Your task to perform on an android device: all mails in gmail Image 0: 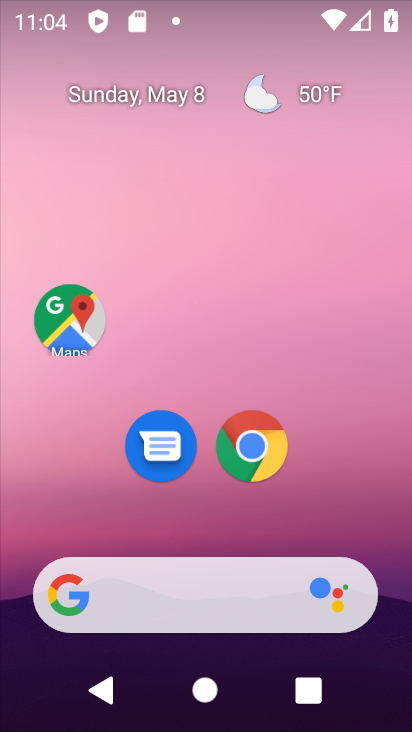
Step 0: drag from (317, 548) to (277, 164)
Your task to perform on an android device: all mails in gmail Image 1: 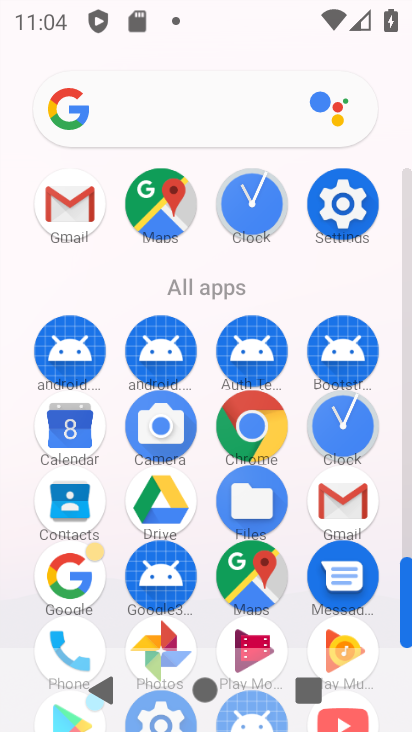
Step 1: click (341, 506)
Your task to perform on an android device: all mails in gmail Image 2: 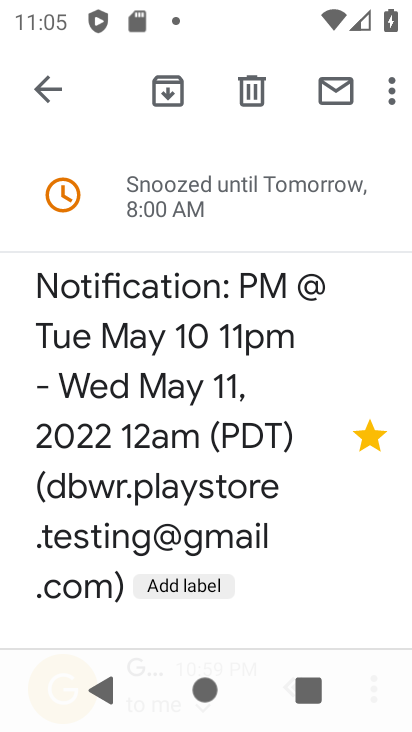
Step 2: click (46, 98)
Your task to perform on an android device: all mails in gmail Image 3: 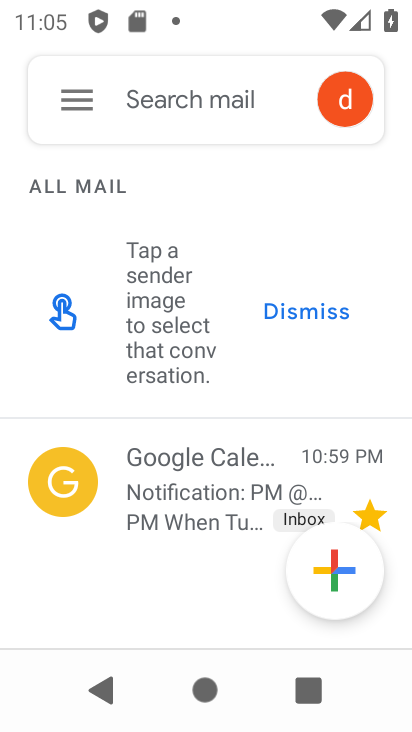
Step 3: click (62, 94)
Your task to perform on an android device: all mails in gmail Image 4: 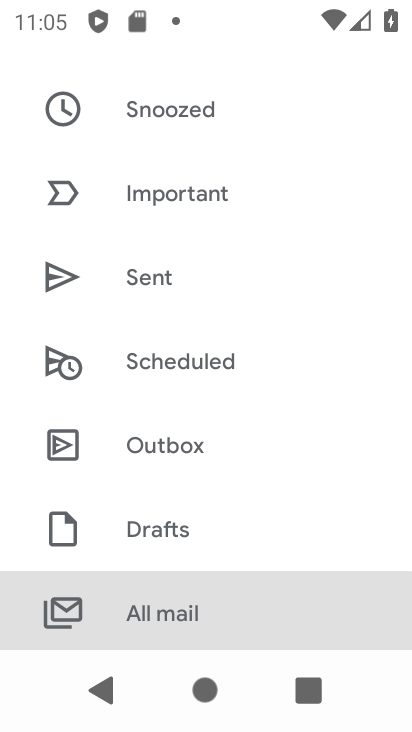
Step 4: click (224, 601)
Your task to perform on an android device: all mails in gmail Image 5: 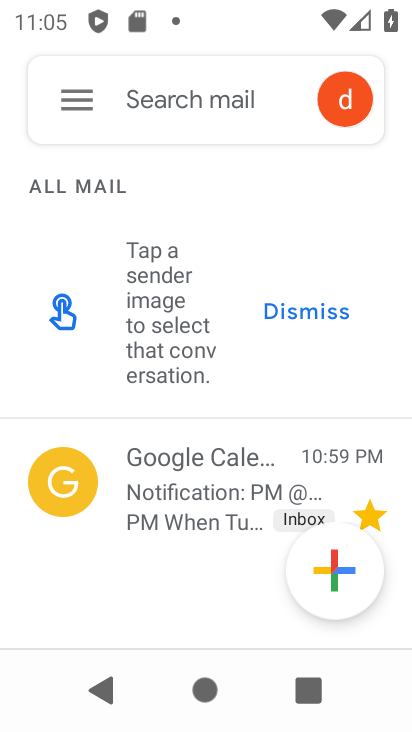
Step 5: task complete